Your task to perform on an android device: Open ESPN.com Image 0: 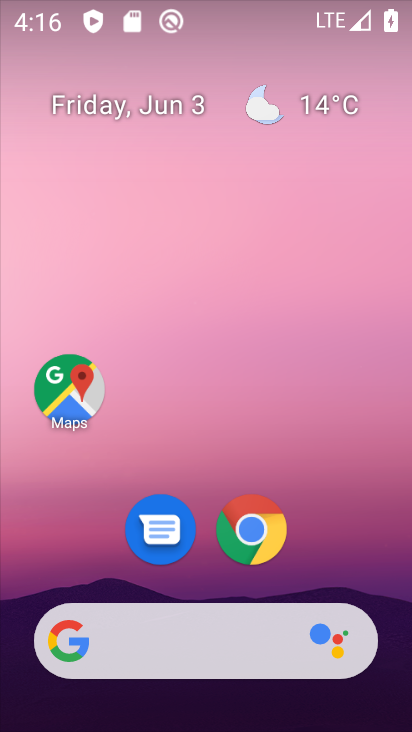
Step 0: press home button
Your task to perform on an android device: Open ESPN.com Image 1: 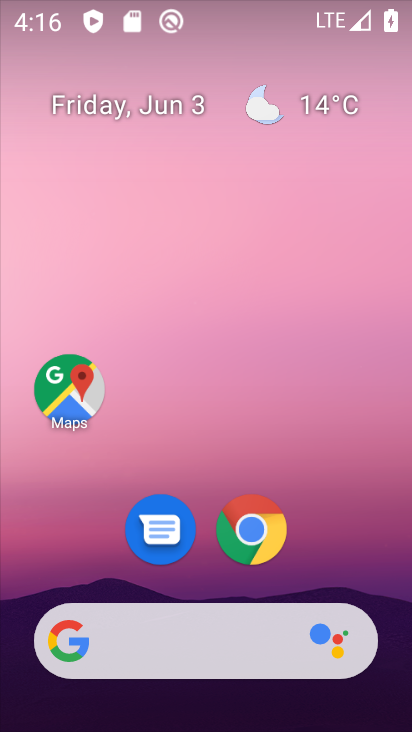
Step 1: click (249, 524)
Your task to perform on an android device: Open ESPN.com Image 2: 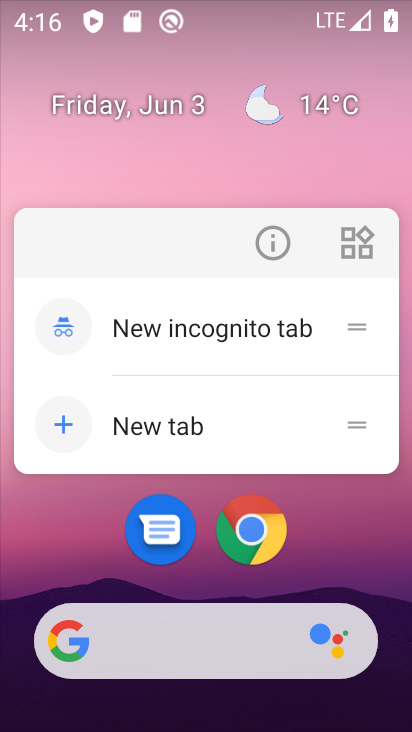
Step 2: click (249, 524)
Your task to perform on an android device: Open ESPN.com Image 3: 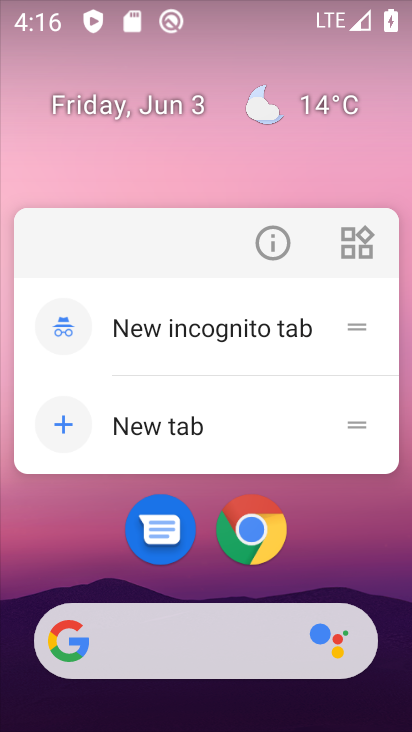
Step 3: click (249, 524)
Your task to perform on an android device: Open ESPN.com Image 4: 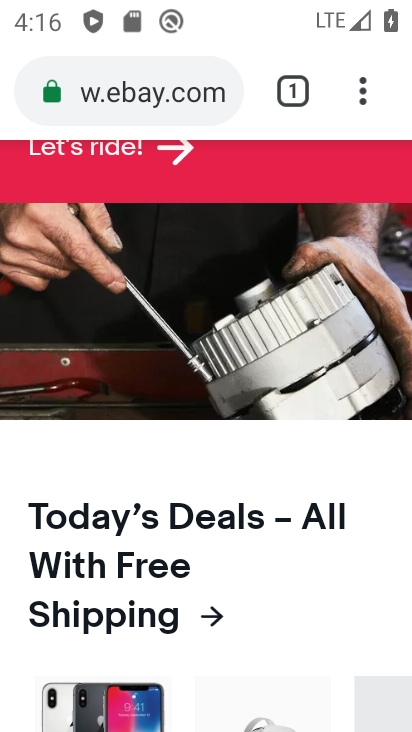
Step 4: click (296, 83)
Your task to perform on an android device: Open ESPN.com Image 5: 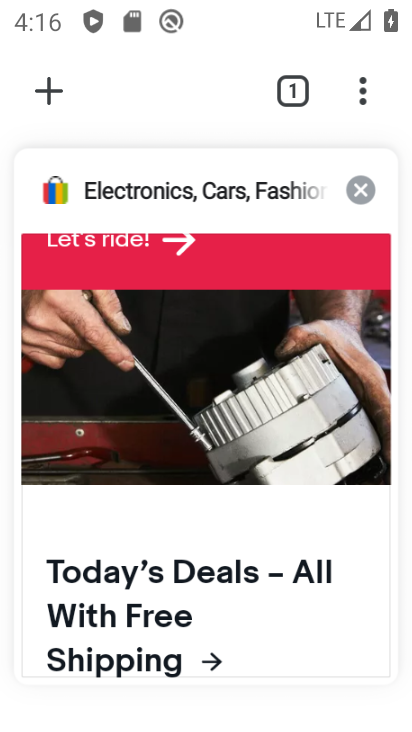
Step 5: click (358, 186)
Your task to perform on an android device: Open ESPN.com Image 6: 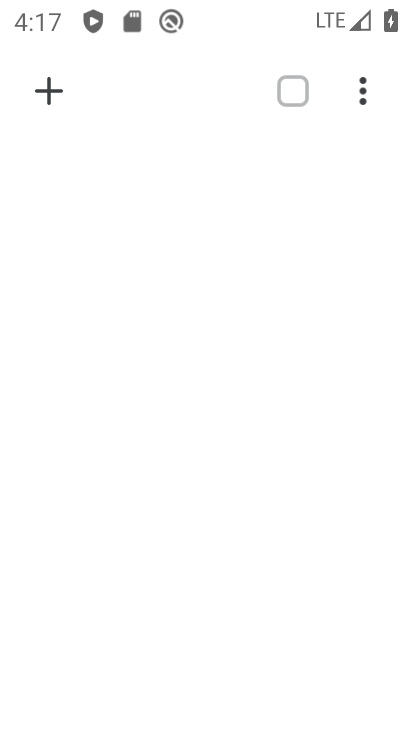
Step 6: click (61, 91)
Your task to perform on an android device: Open ESPN.com Image 7: 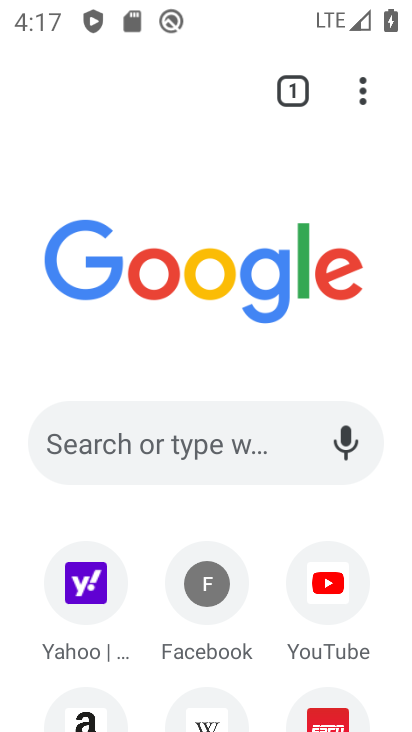
Step 7: click (163, 434)
Your task to perform on an android device: Open ESPN.com Image 8: 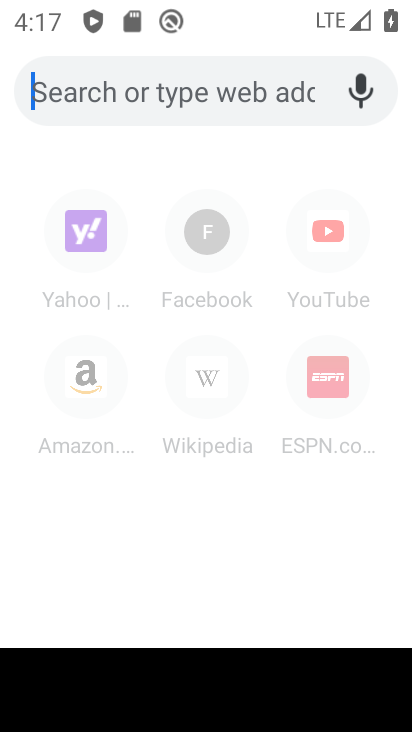
Step 8: click (315, 403)
Your task to perform on an android device: Open ESPN.com Image 9: 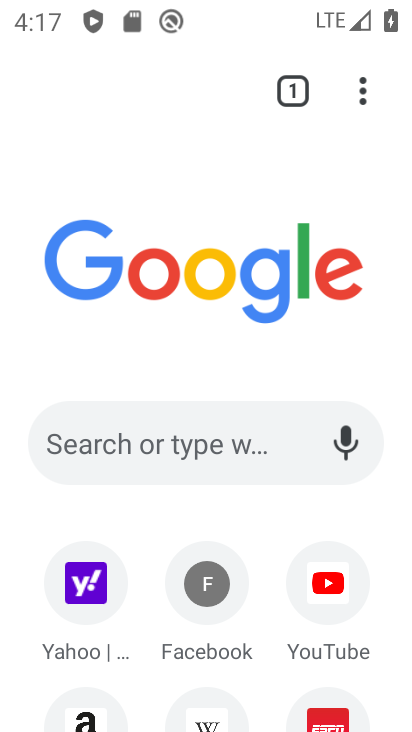
Step 9: click (329, 709)
Your task to perform on an android device: Open ESPN.com Image 10: 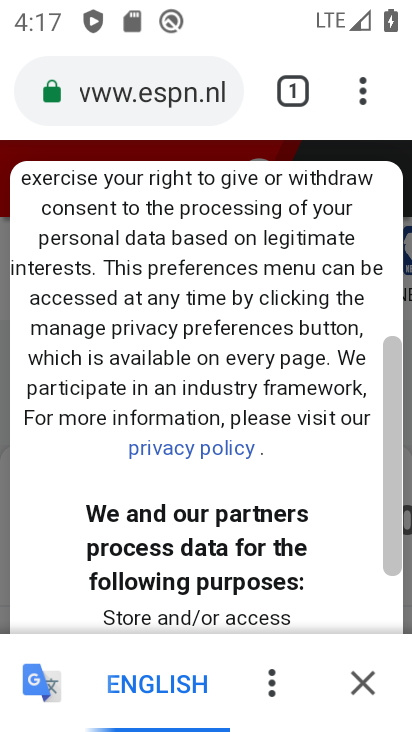
Step 10: drag from (219, 581) to (237, 414)
Your task to perform on an android device: Open ESPN.com Image 11: 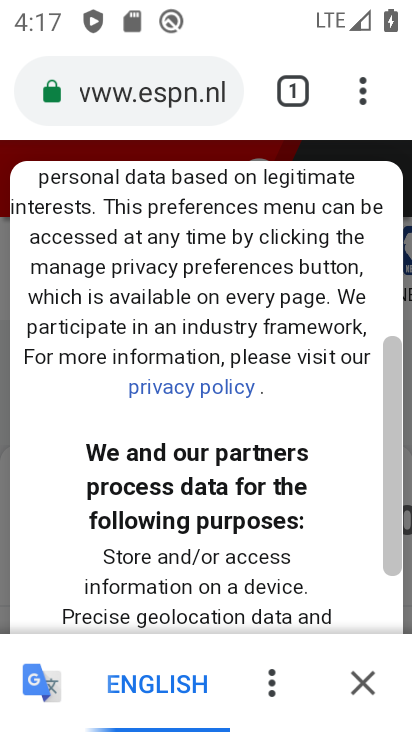
Step 11: drag from (241, 233) to (242, 137)
Your task to perform on an android device: Open ESPN.com Image 12: 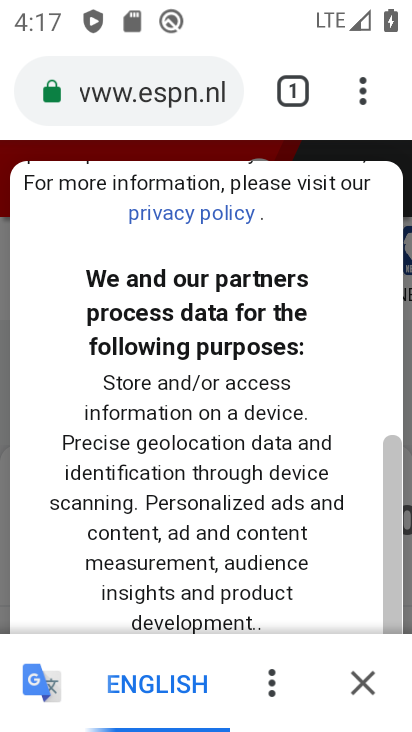
Step 12: drag from (252, 592) to (249, 137)
Your task to perform on an android device: Open ESPN.com Image 13: 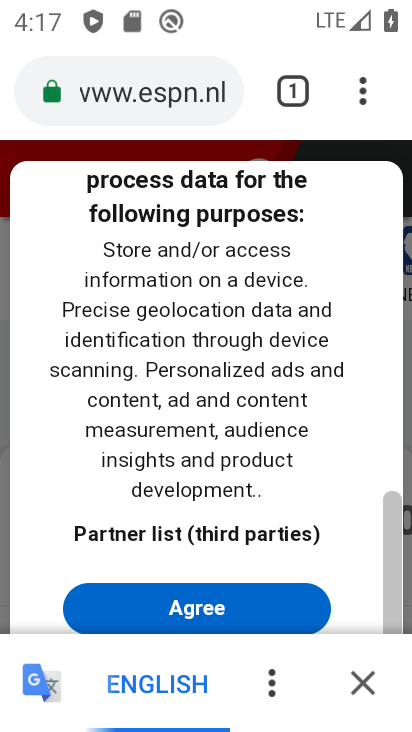
Step 13: click (200, 602)
Your task to perform on an android device: Open ESPN.com Image 14: 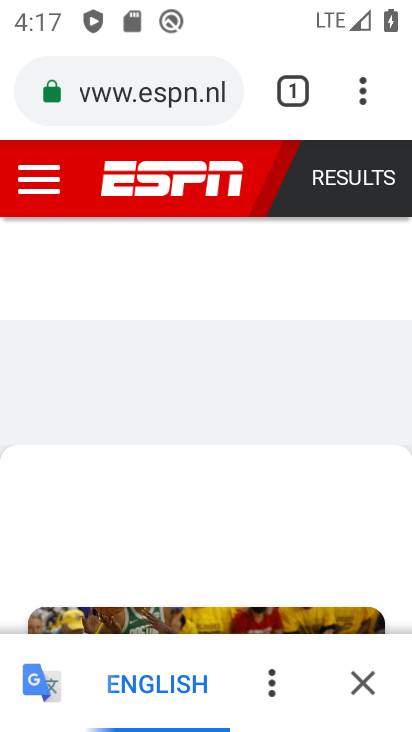
Step 14: click (364, 676)
Your task to perform on an android device: Open ESPN.com Image 15: 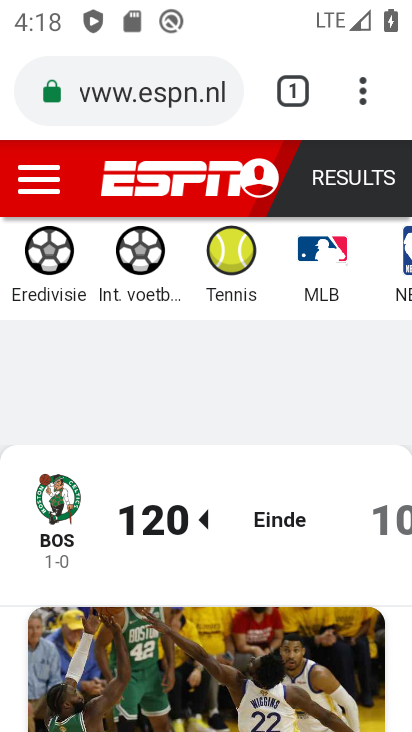
Step 15: task complete